Your task to perform on an android device: Go to CNN.com Image 0: 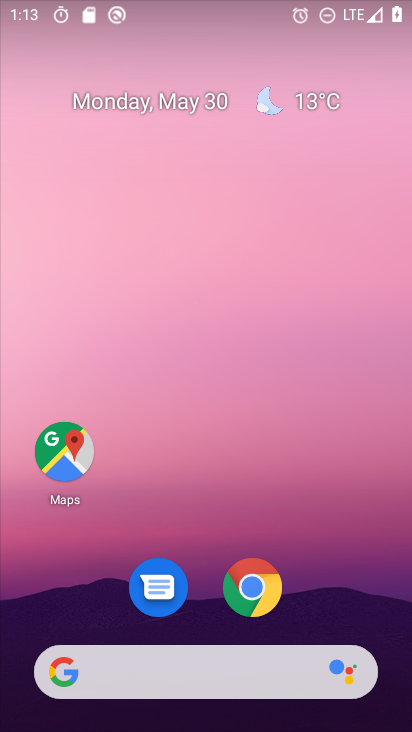
Step 0: drag from (327, 589) to (293, 157)
Your task to perform on an android device: Go to CNN.com Image 1: 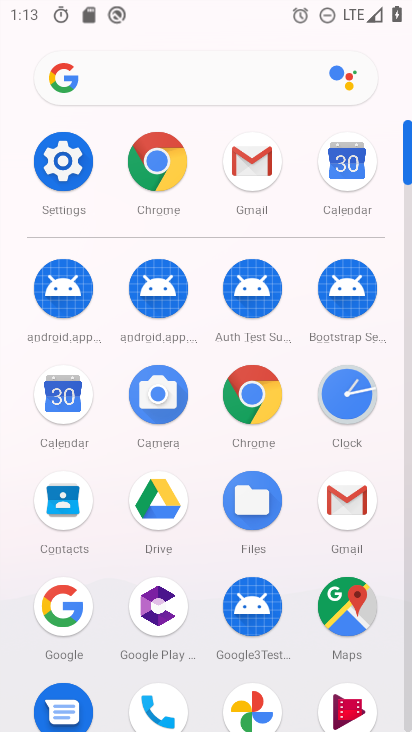
Step 1: click (163, 164)
Your task to perform on an android device: Go to CNN.com Image 2: 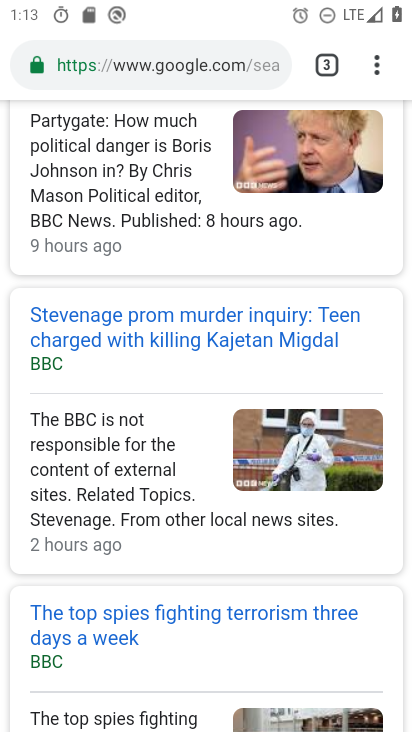
Step 2: click (175, 73)
Your task to perform on an android device: Go to CNN.com Image 3: 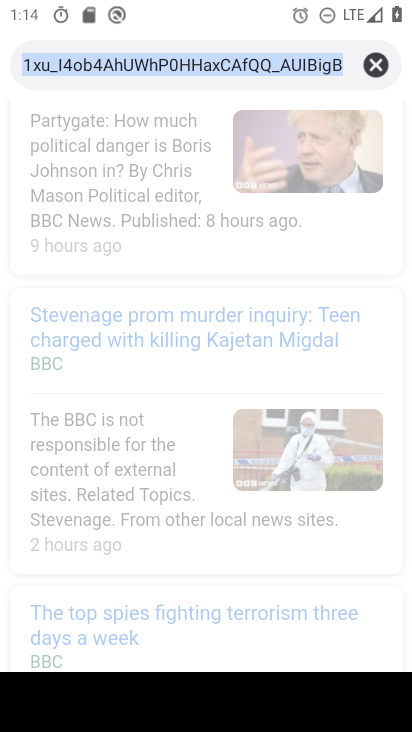
Step 3: type "cnn.com"
Your task to perform on an android device: Go to CNN.com Image 4: 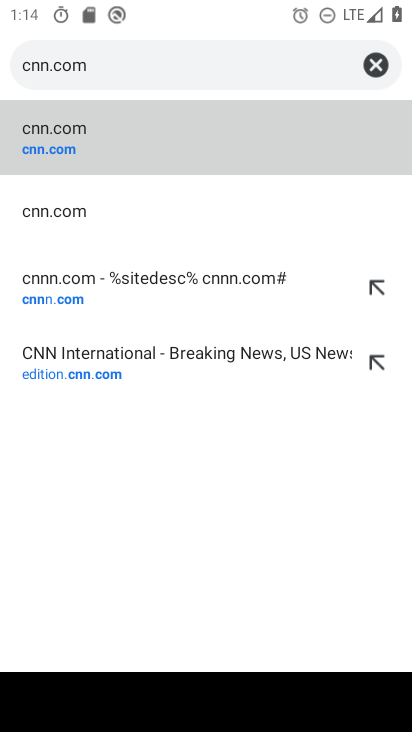
Step 4: click (62, 137)
Your task to perform on an android device: Go to CNN.com Image 5: 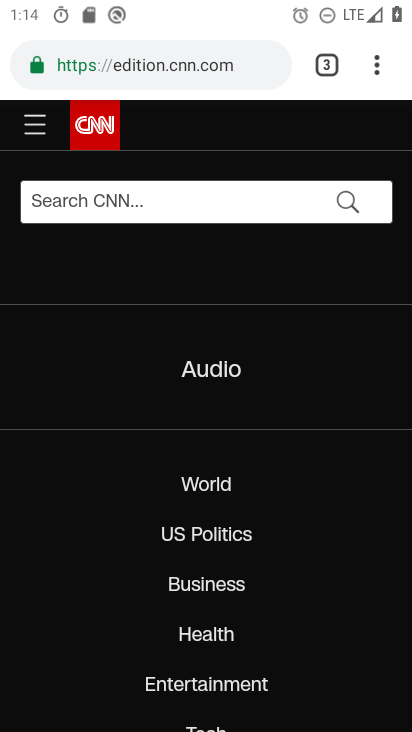
Step 5: task complete